Your task to perform on an android device: turn on javascript in the chrome app Image 0: 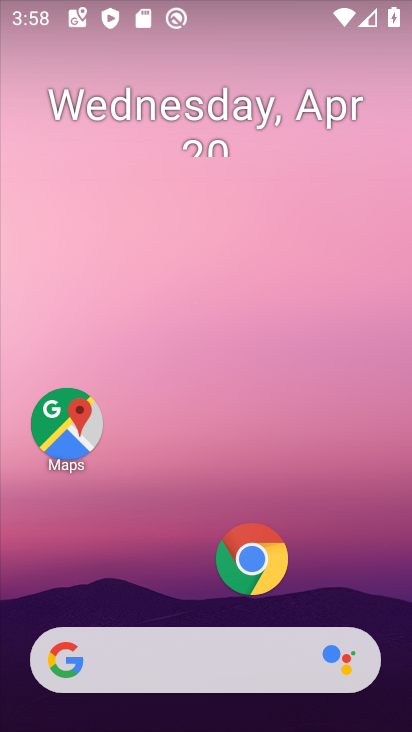
Step 0: click (254, 558)
Your task to perform on an android device: turn on javascript in the chrome app Image 1: 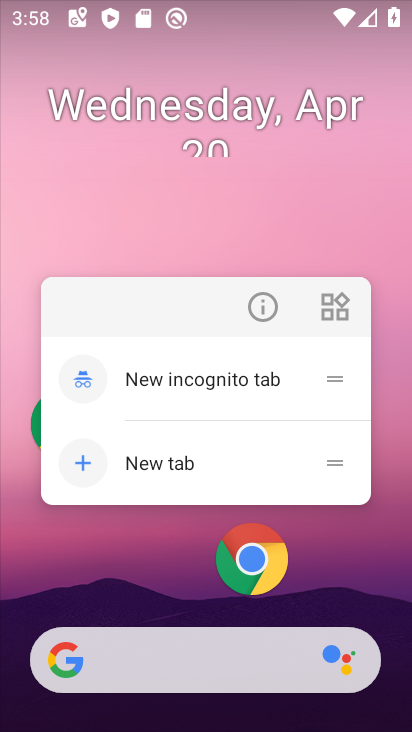
Step 1: click (262, 312)
Your task to perform on an android device: turn on javascript in the chrome app Image 2: 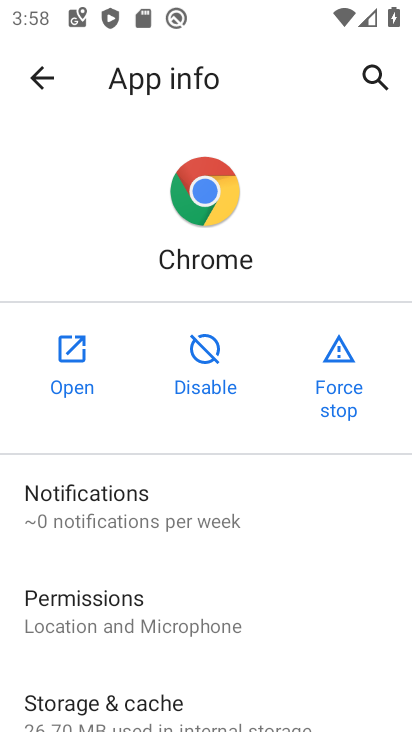
Step 2: click (56, 374)
Your task to perform on an android device: turn on javascript in the chrome app Image 3: 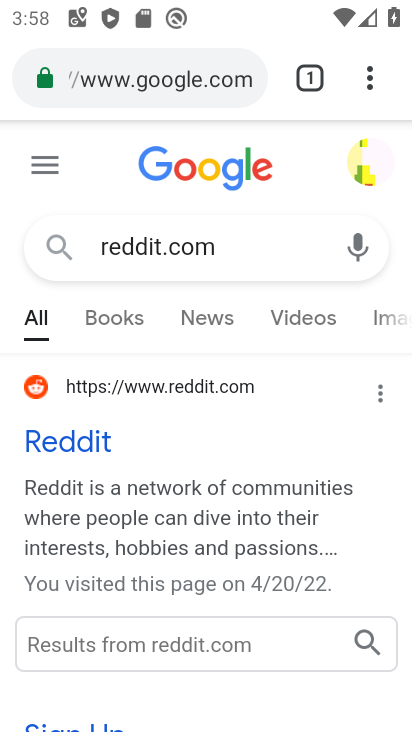
Step 3: click (367, 80)
Your task to perform on an android device: turn on javascript in the chrome app Image 4: 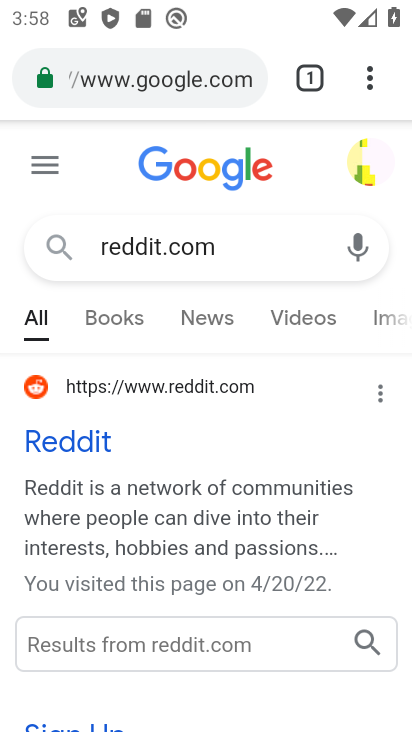
Step 4: click (367, 80)
Your task to perform on an android device: turn on javascript in the chrome app Image 5: 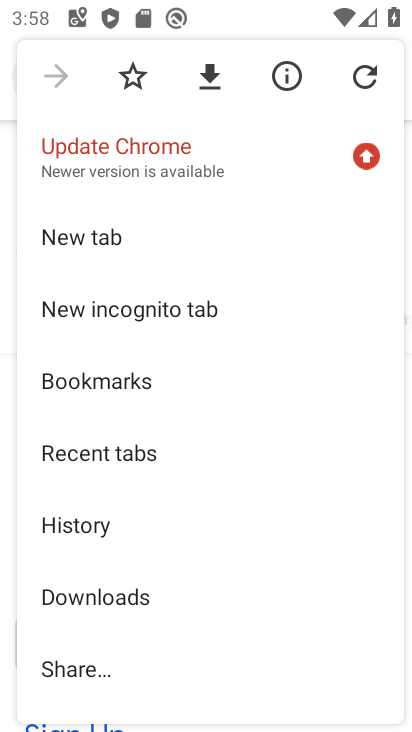
Step 5: drag from (81, 508) to (142, 236)
Your task to perform on an android device: turn on javascript in the chrome app Image 6: 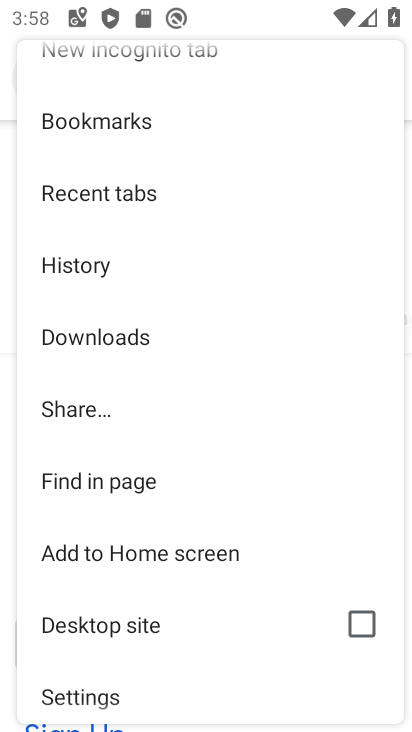
Step 6: click (56, 695)
Your task to perform on an android device: turn on javascript in the chrome app Image 7: 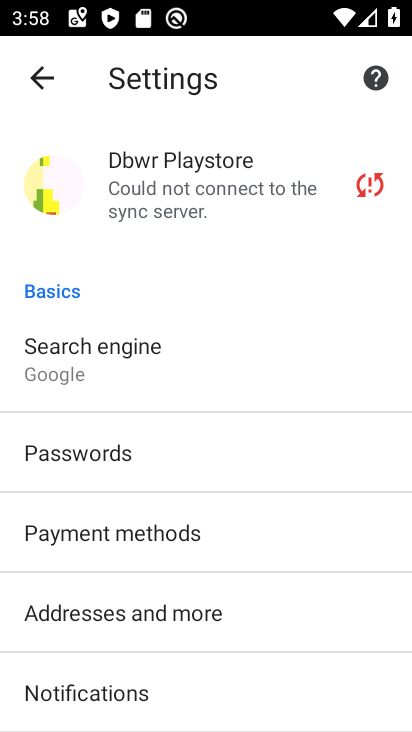
Step 7: drag from (158, 645) to (238, 288)
Your task to perform on an android device: turn on javascript in the chrome app Image 8: 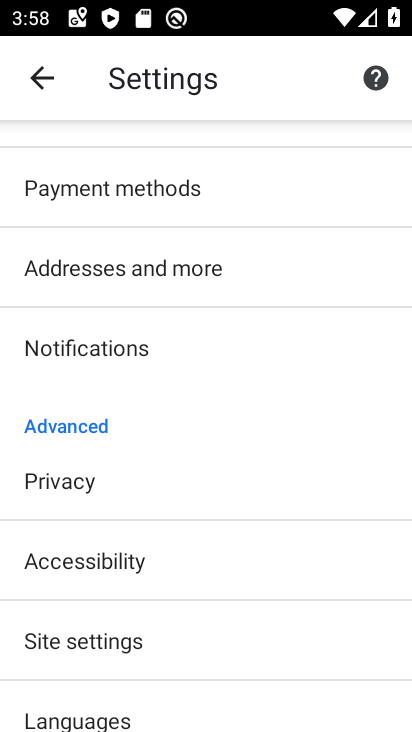
Step 8: click (116, 632)
Your task to perform on an android device: turn on javascript in the chrome app Image 9: 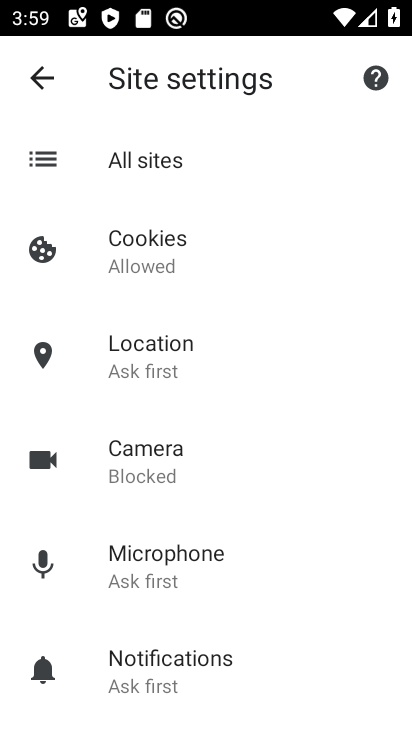
Step 9: drag from (139, 629) to (206, 282)
Your task to perform on an android device: turn on javascript in the chrome app Image 10: 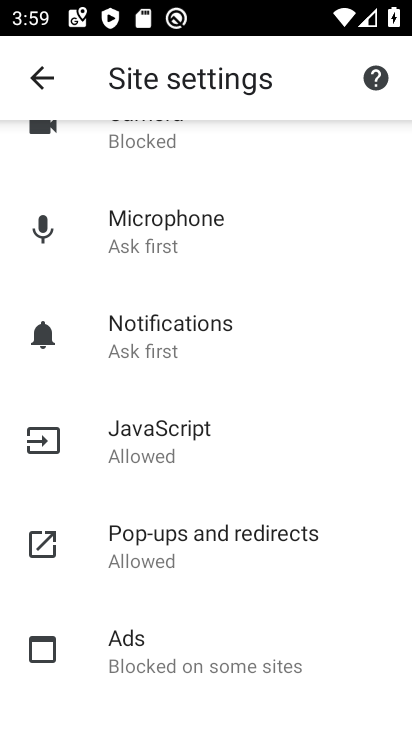
Step 10: click (167, 449)
Your task to perform on an android device: turn on javascript in the chrome app Image 11: 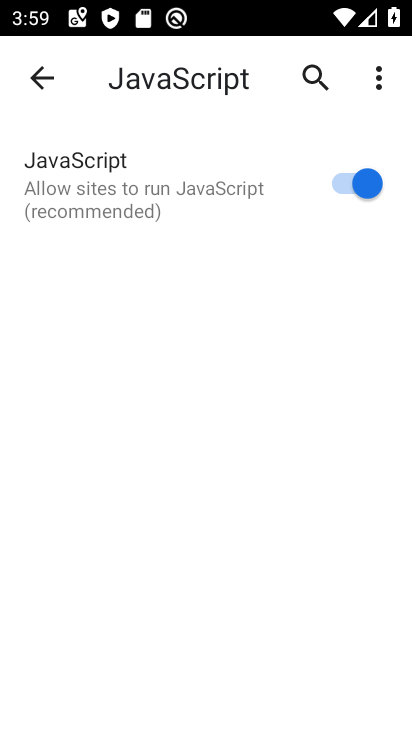
Step 11: task complete